Your task to perform on an android device: Open location settings Image 0: 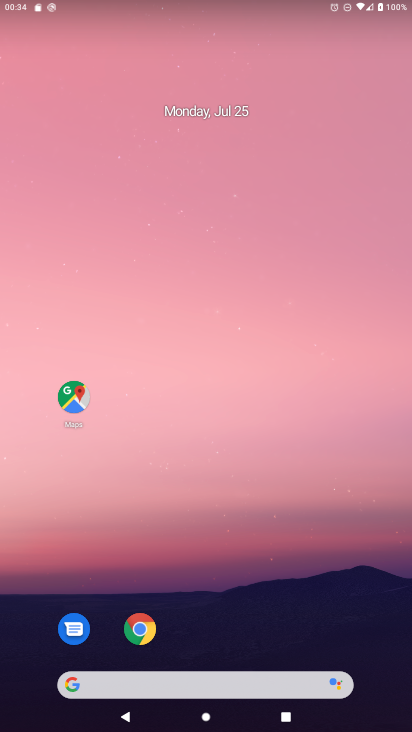
Step 0: drag from (193, 632) to (248, 131)
Your task to perform on an android device: Open location settings Image 1: 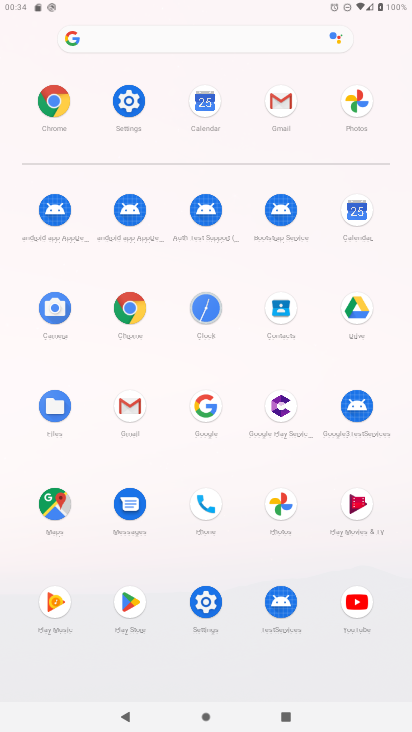
Step 1: click (202, 589)
Your task to perform on an android device: Open location settings Image 2: 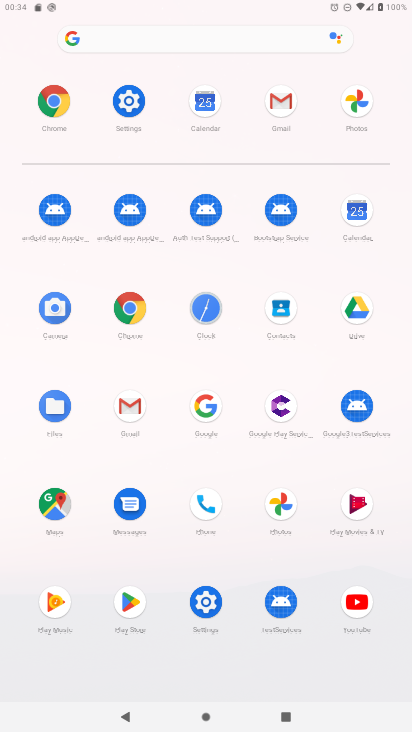
Step 2: click (202, 589)
Your task to perform on an android device: Open location settings Image 3: 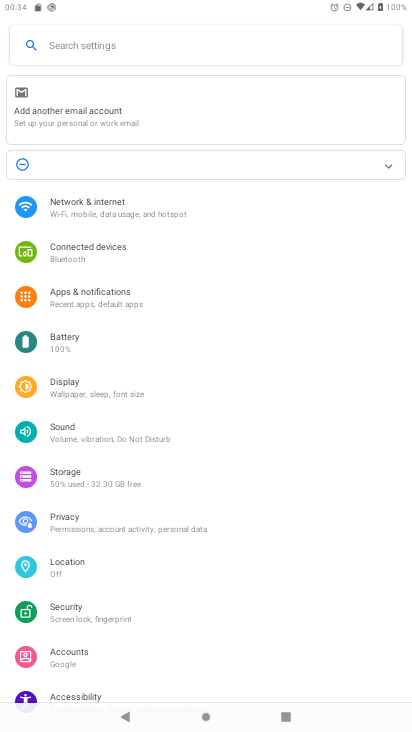
Step 3: click (65, 561)
Your task to perform on an android device: Open location settings Image 4: 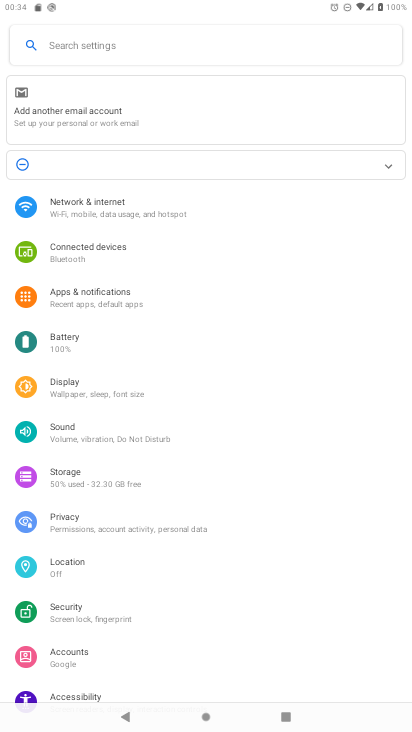
Step 4: click (65, 561)
Your task to perform on an android device: Open location settings Image 5: 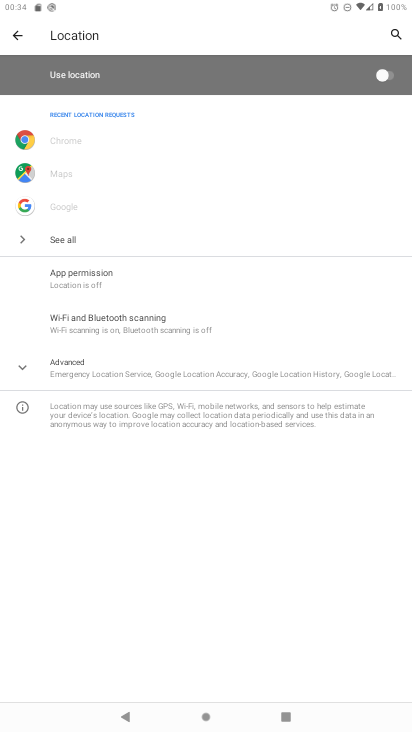
Step 5: task complete